Your task to perform on an android device: turn off location Image 0: 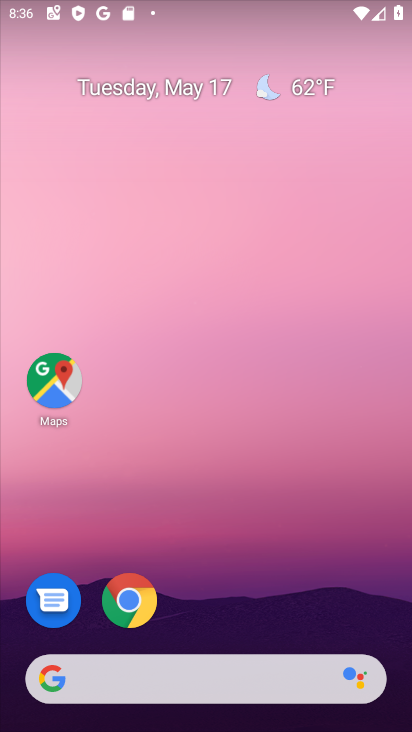
Step 0: drag from (261, 706) to (250, 192)
Your task to perform on an android device: turn off location Image 1: 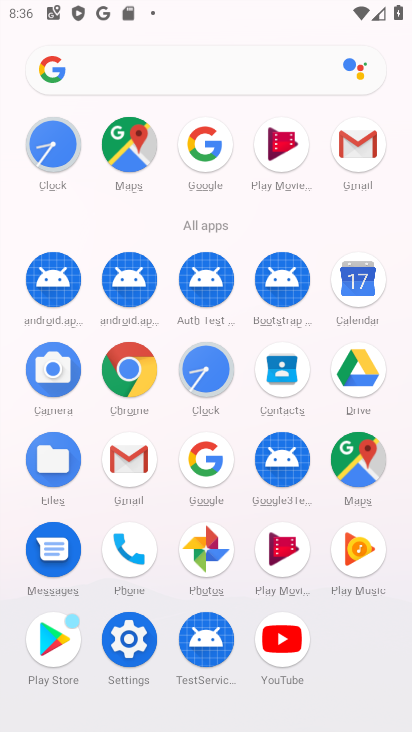
Step 1: click (132, 636)
Your task to perform on an android device: turn off location Image 2: 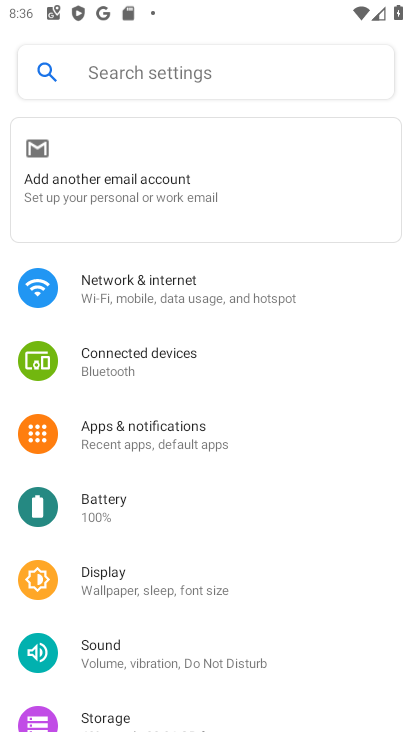
Step 2: drag from (227, 639) to (230, 256)
Your task to perform on an android device: turn off location Image 3: 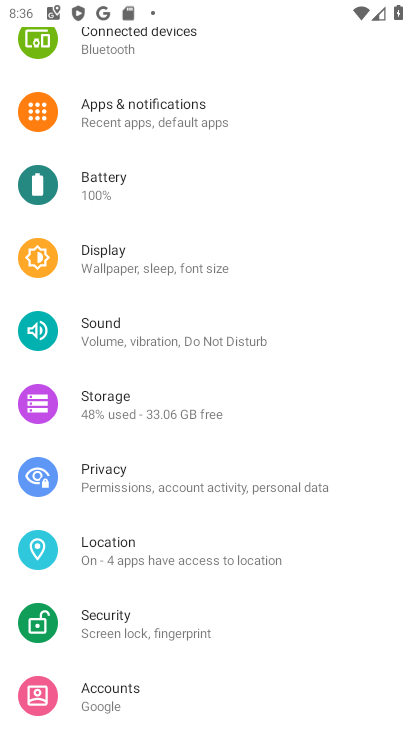
Step 3: click (101, 549)
Your task to perform on an android device: turn off location Image 4: 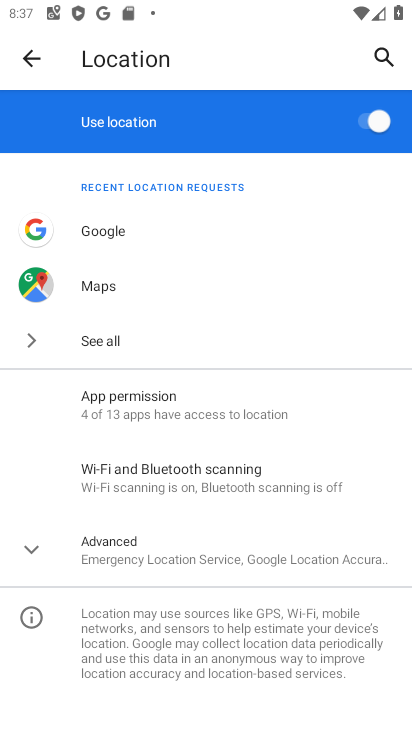
Step 4: click (363, 123)
Your task to perform on an android device: turn off location Image 5: 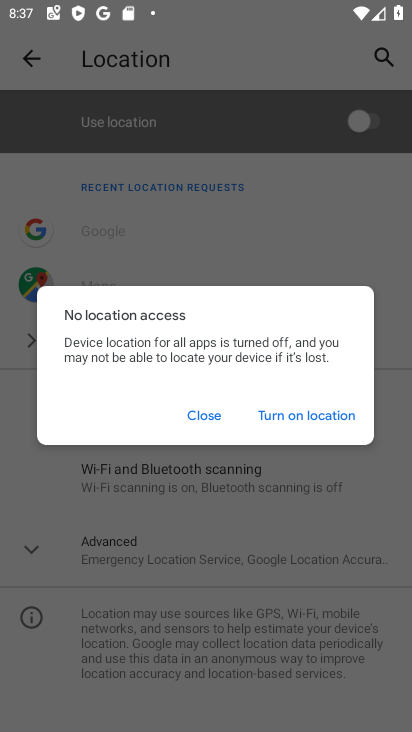
Step 5: click (203, 413)
Your task to perform on an android device: turn off location Image 6: 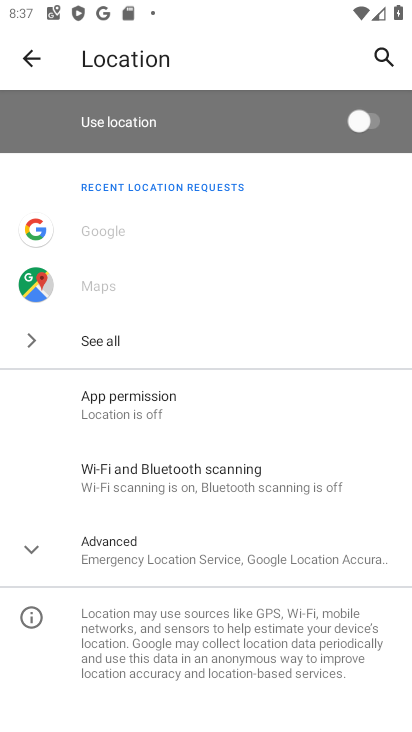
Step 6: task complete